Your task to perform on an android device: set default search engine in the chrome app Image 0: 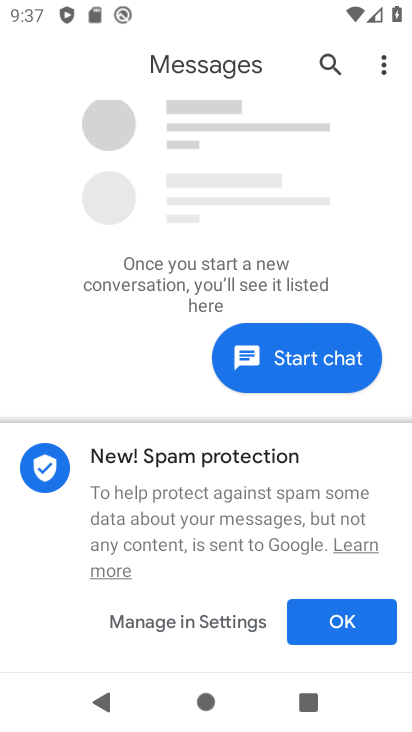
Step 0: press home button
Your task to perform on an android device: set default search engine in the chrome app Image 1: 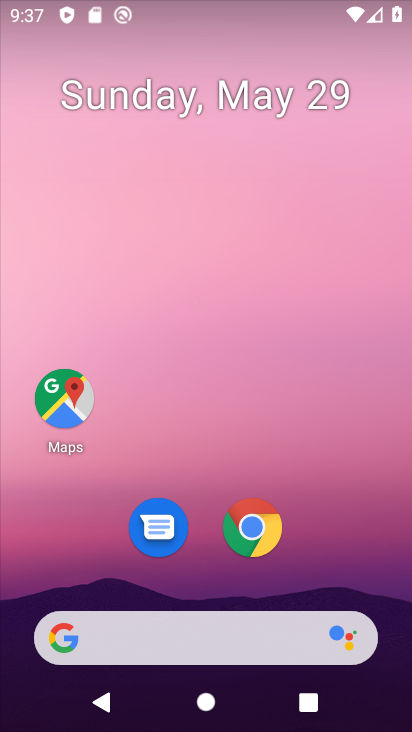
Step 1: click (251, 522)
Your task to perform on an android device: set default search engine in the chrome app Image 2: 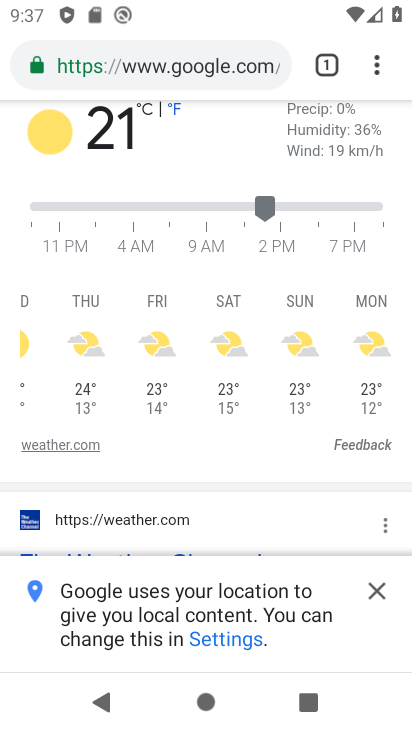
Step 2: drag from (374, 54) to (232, 564)
Your task to perform on an android device: set default search engine in the chrome app Image 3: 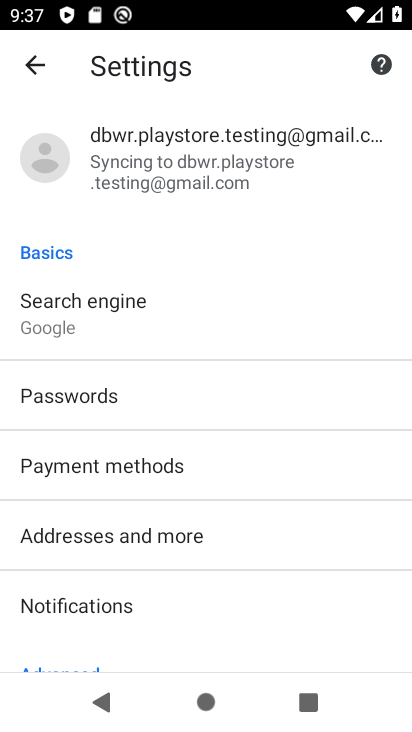
Step 3: click (173, 294)
Your task to perform on an android device: set default search engine in the chrome app Image 4: 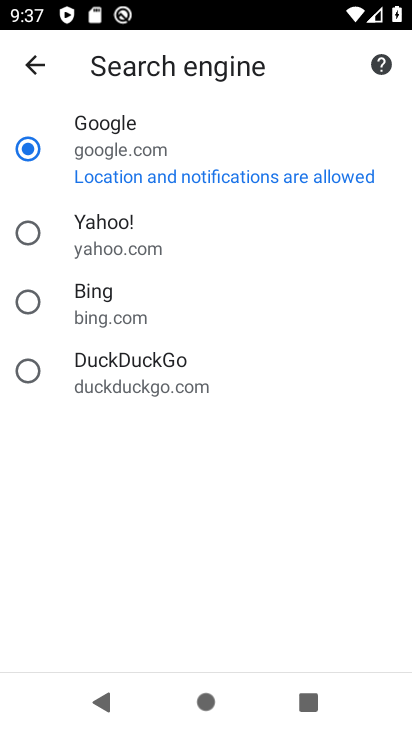
Step 4: task complete